Your task to perform on an android device: Go to Google maps Image 0: 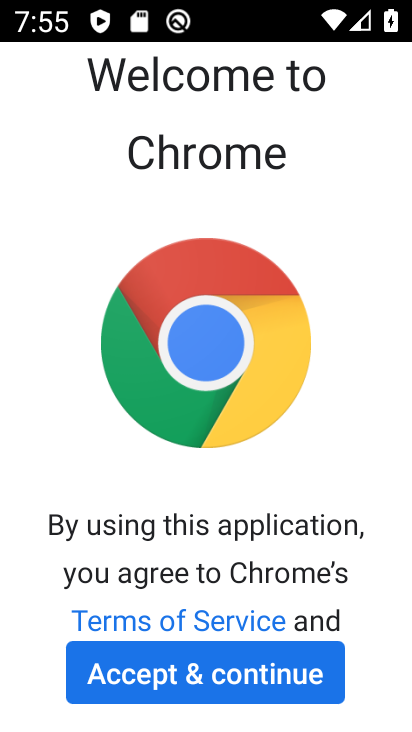
Step 0: press home button
Your task to perform on an android device: Go to Google maps Image 1: 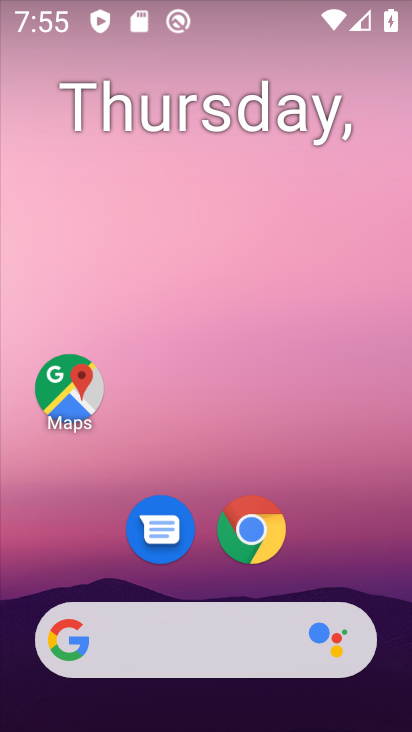
Step 1: click (67, 396)
Your task to perform on an android device: Go to Google maps Image 2: 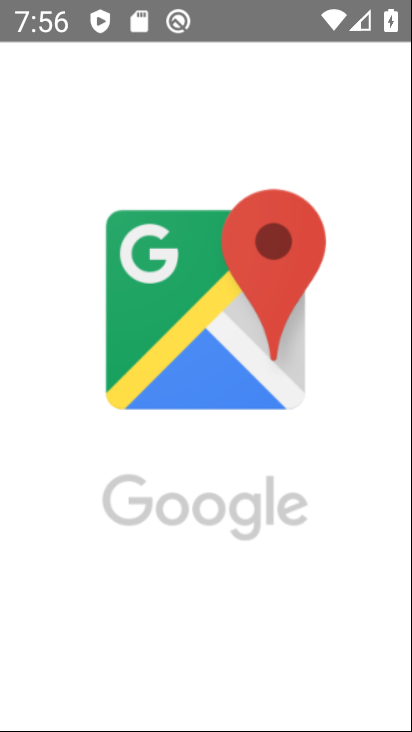
Step 2: task complete